Your task to perform on an android device: turn on showing notifications on the lock screen Image 0: 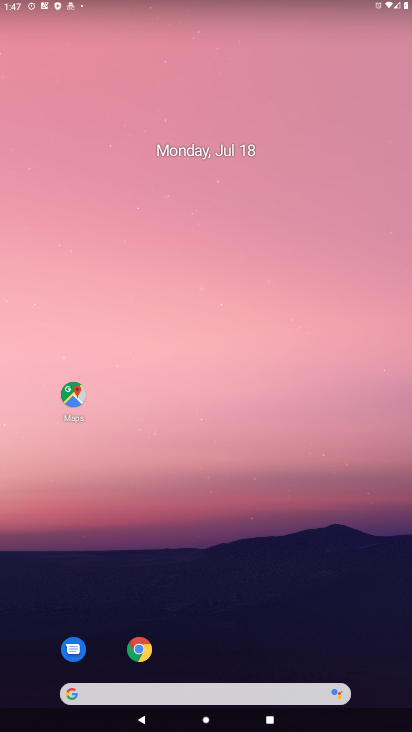
Step 0: drag from (191, 672) to (124, 109)
Your task to perform on an android device: turn on showing notifications on the lock screen Image 1: 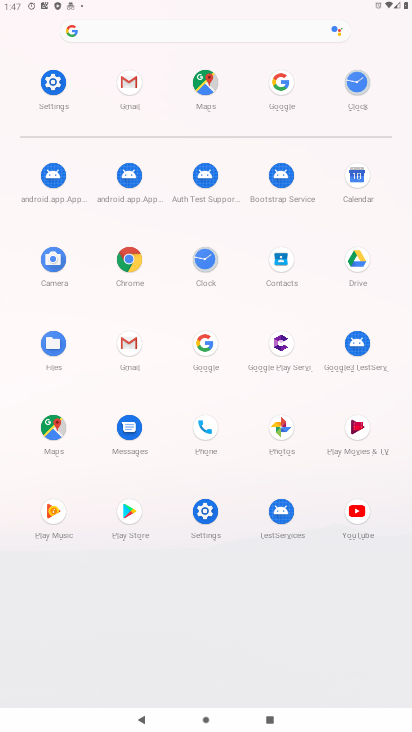
Step 1: click (210, 508)
Your task to perform on an android device: turn on showing notifications on the lock screen Image 2: 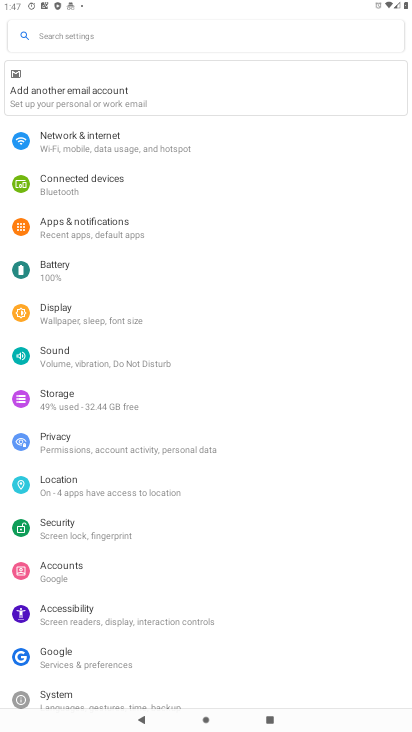
Step 2: click (74, 226)
Your task to perform on an android device: turn on showing notifications on the lock screen Image 3: 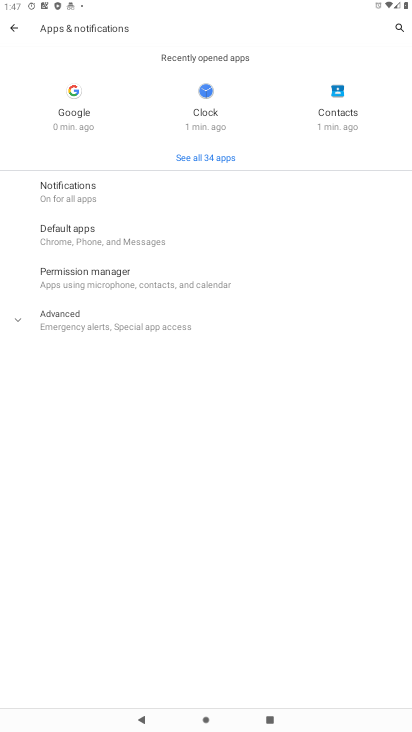
Step 3: click (72, 185)
Your task to perform on an android device: turn on showing notifications on the lock screen Image 4: 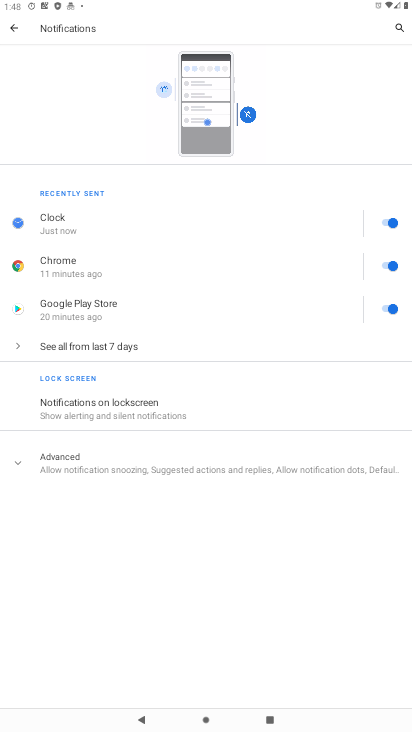
Step 4: click (135, 411)
Your task to perform on an android device: turn on showing notifications on the lock screen Image 5: 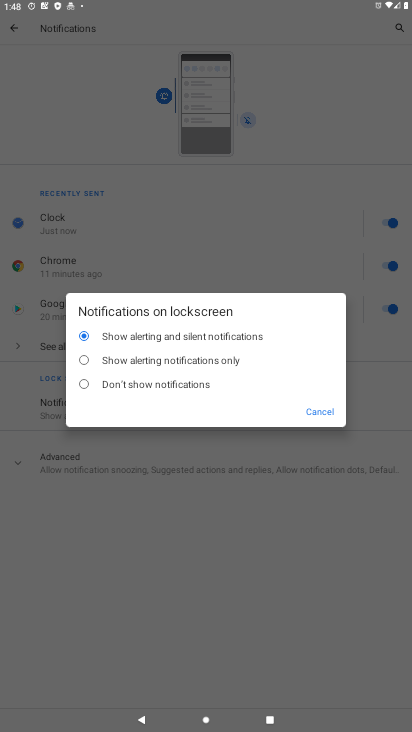
Step 5: task complete